Your task to perform on an android device: check data usage Image 0: 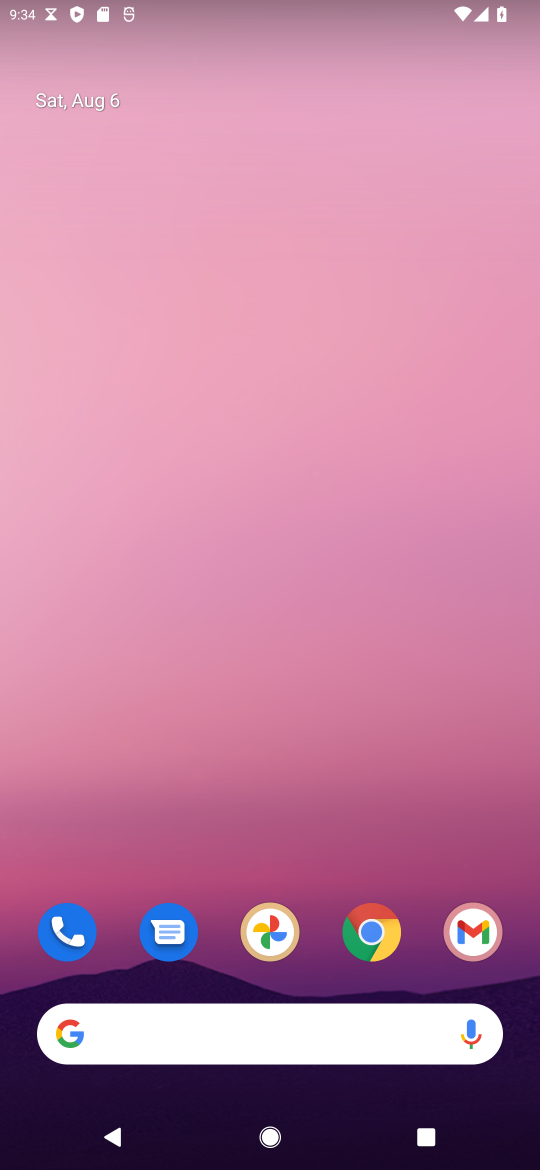
Step 0: drag from (319, 1034) to (352, 372)
Your task to perform on an android device: check data usage Image 1: 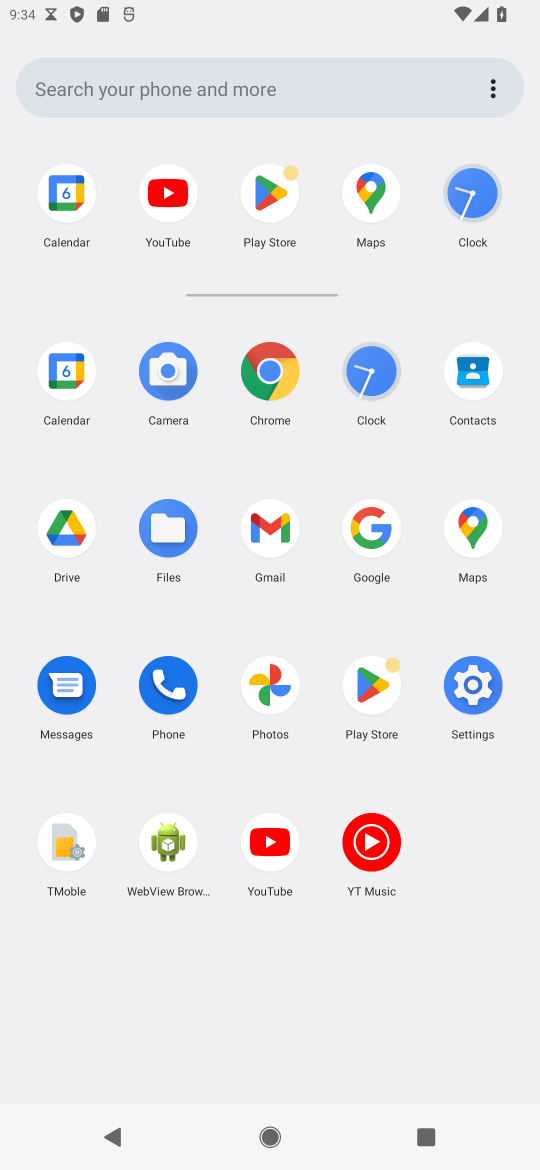
Step 1: click (465, 690)
Your task to perform on an android device: check data usage Image 2: 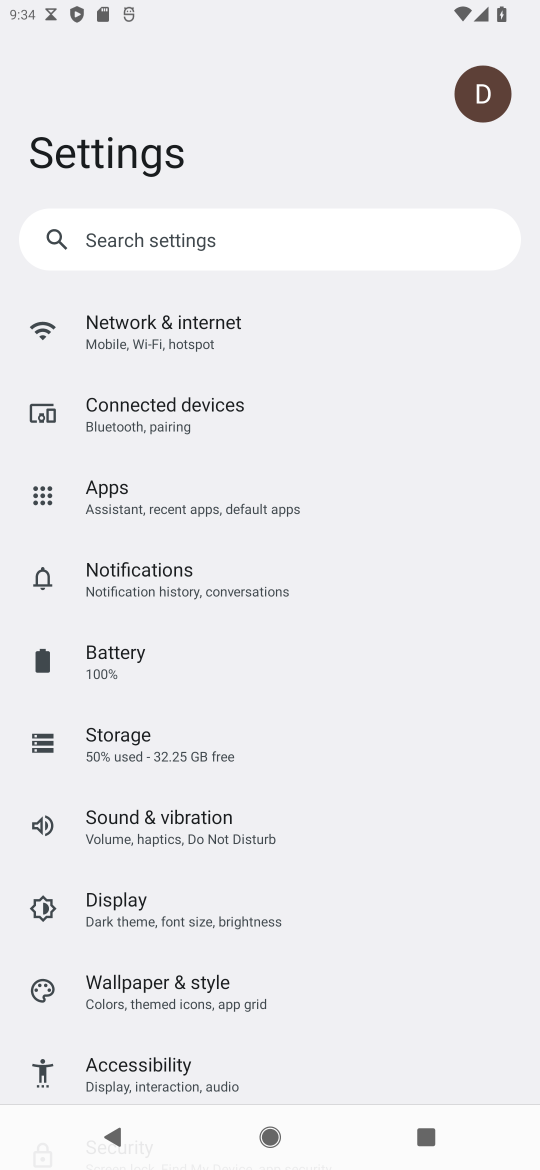
Step 2: click (194, 343)
Your task to perform on an android device: check data usage Image 3: 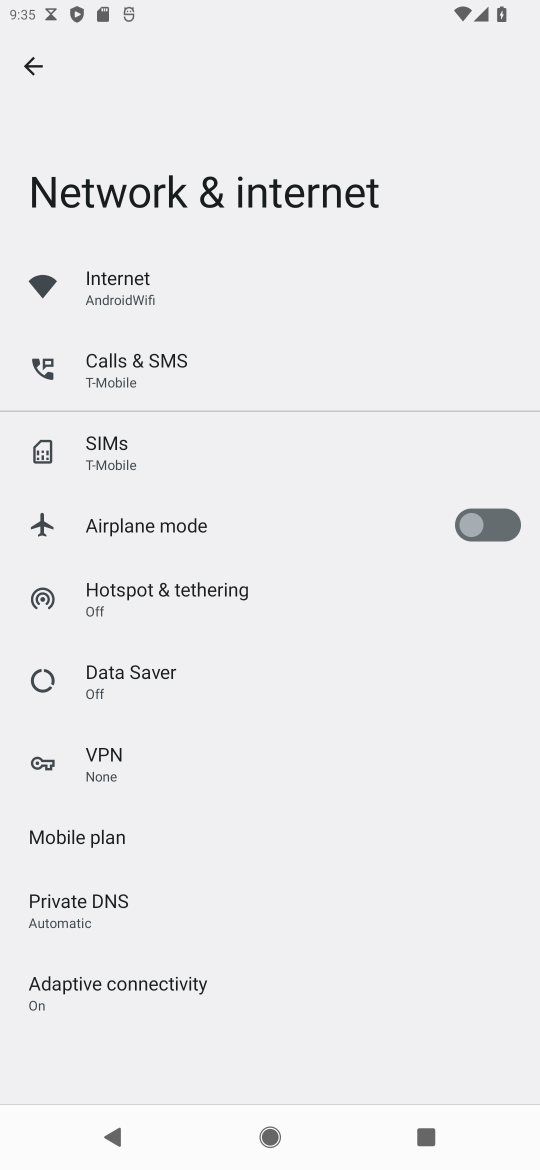
Step 3: click (133, 299)
Your task to perform on an android device: check data usage Image 4: 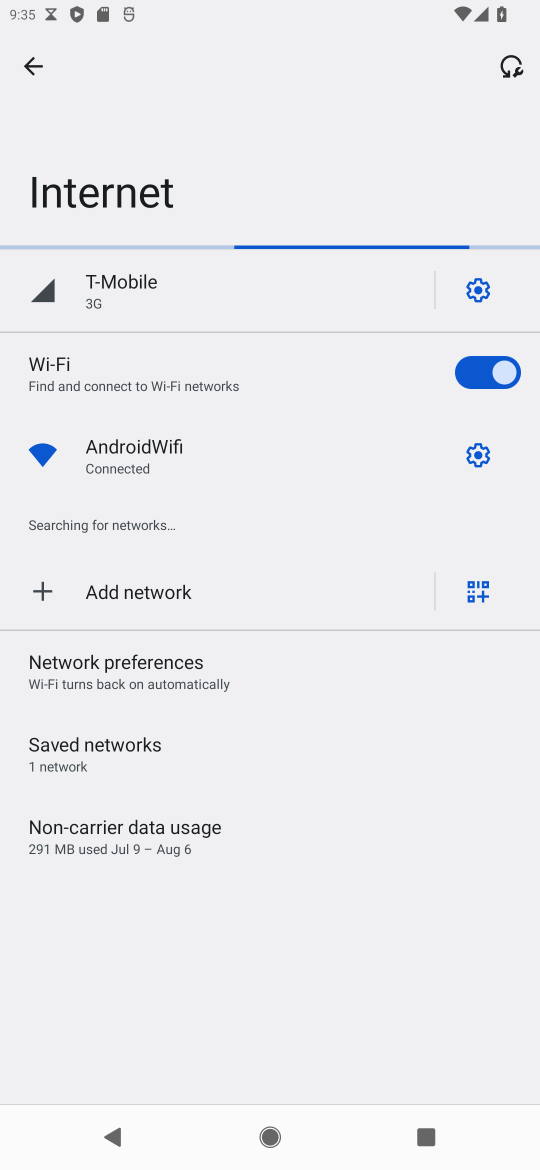
Step 4: click (476, 290)
Your task to perform on an android device: check data usage Image 5: 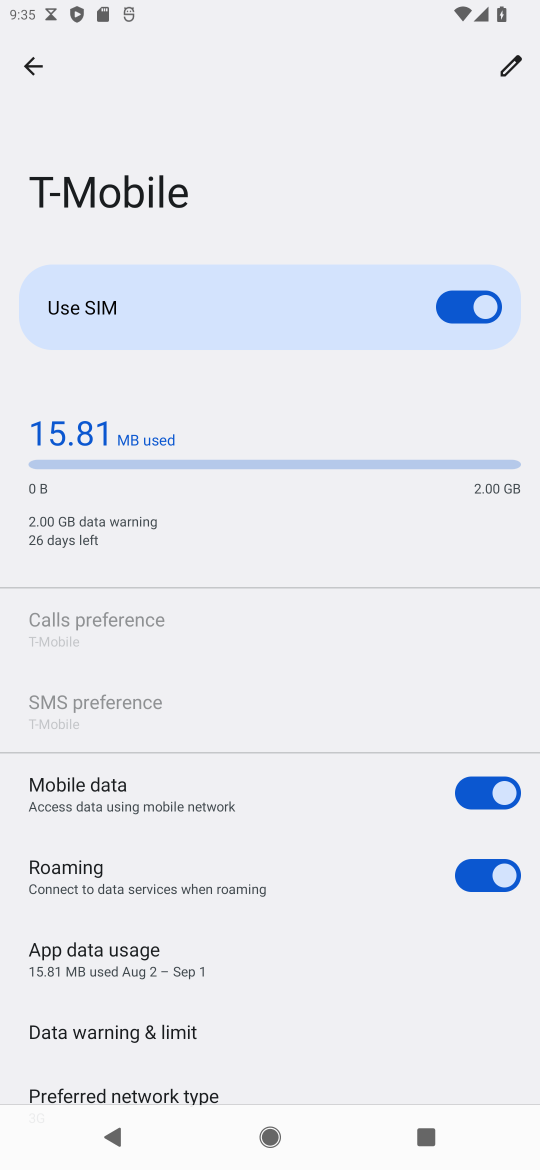
Step 5: task complete